Your task to perform on an android device: open device folders in google photos Image 0: 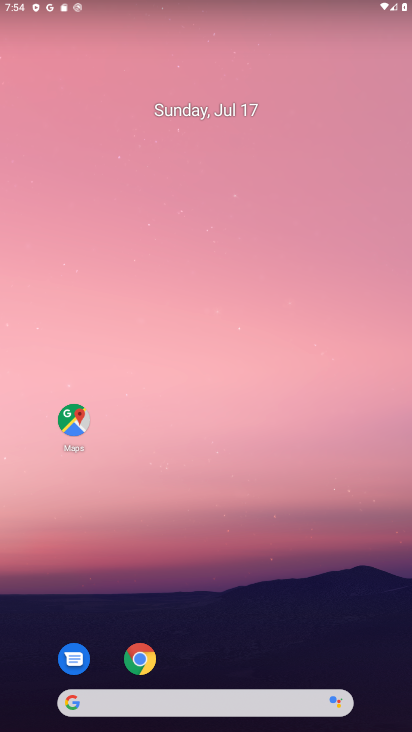
Step 0: drag from (296, 700) to (228, 222)
Your task to perform on an android device: open device folders in google photos Image 1: 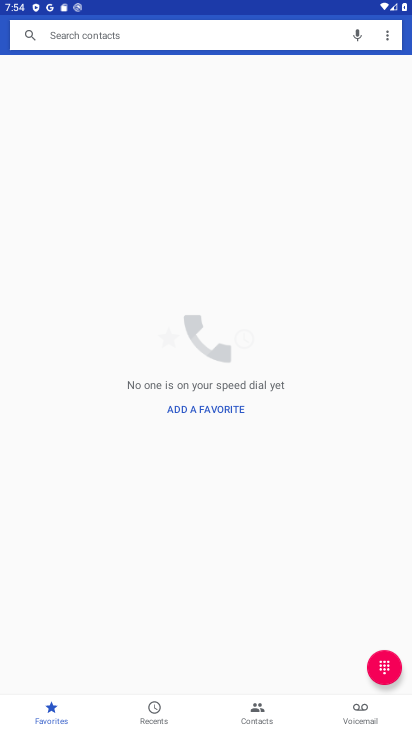
Step 1: click (209, 402)
Your task to perform on an android device: open device folders in google photos Image 2: 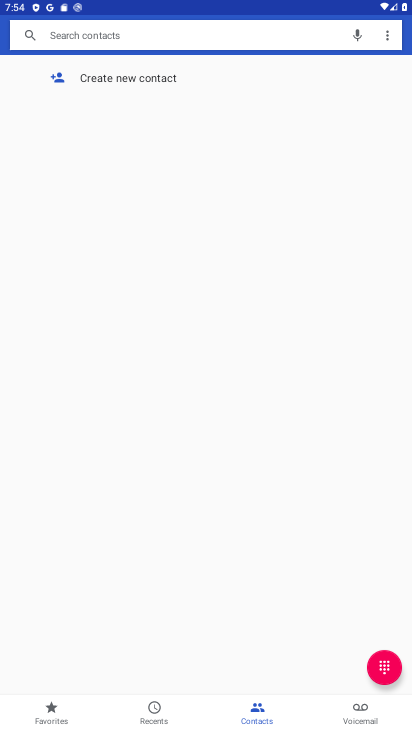
Step 2: click (213, 413)
Your task to perform on an android device: open device folders in google photos Image 3: 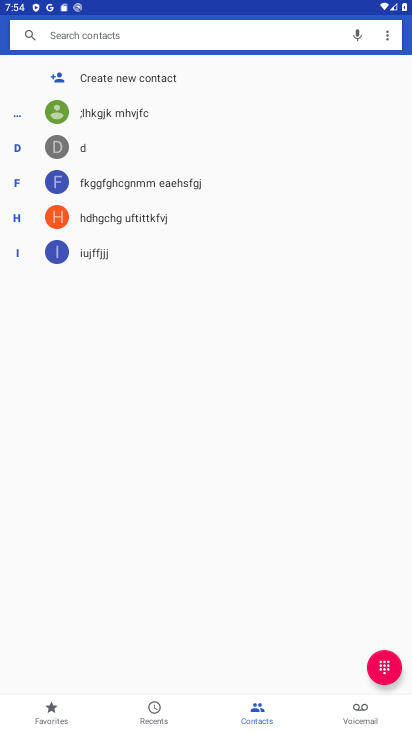
Step 3: click (254, 705)
Your task to perform on an android device: open device folders in google photos Image 4: 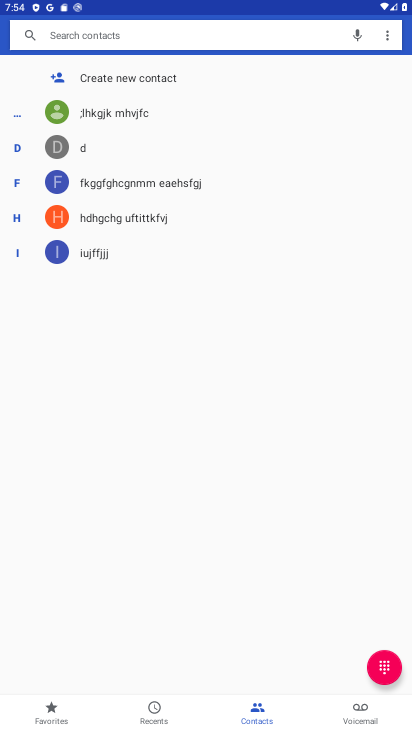
Step 4: click (256, 713)
Your task to perform on an android device: open device folders in google photos Image 5: 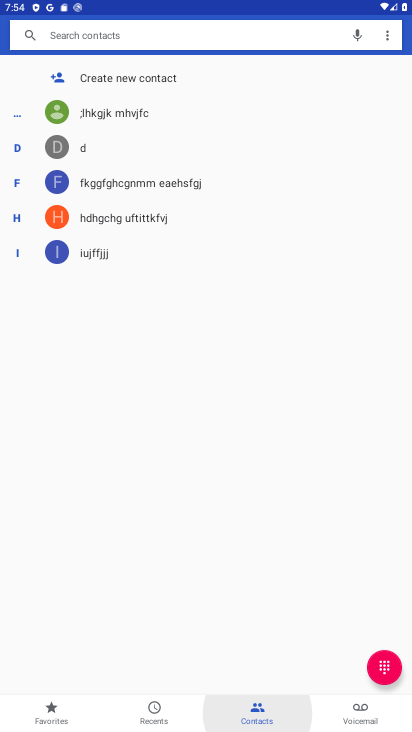
Step 5: click (256, 713)
Your task to perform on an android device: open device folders in google photos Image 6: 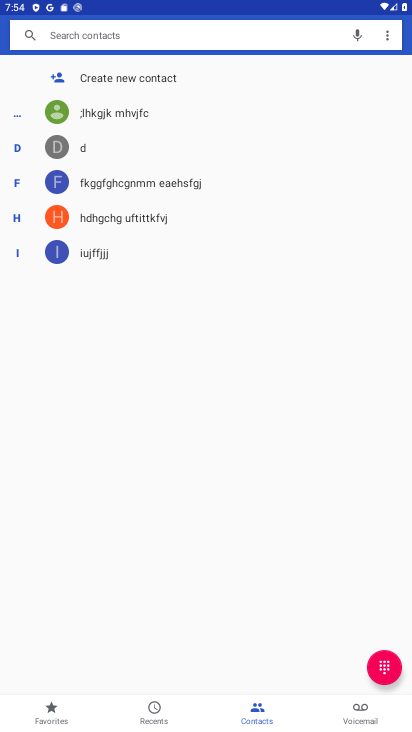
Step 6: click (380, 664)
Your task to perform on an android device: open device folders in google photos Image 7: 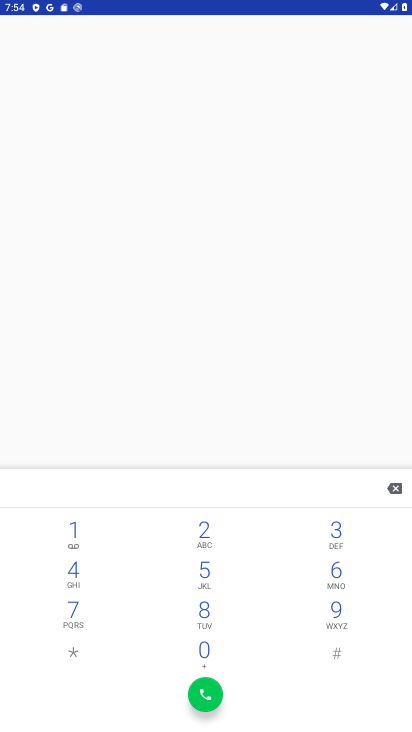
Step 7: press back button
Your task to perform on an android device: open device folders in google photos Image 8: 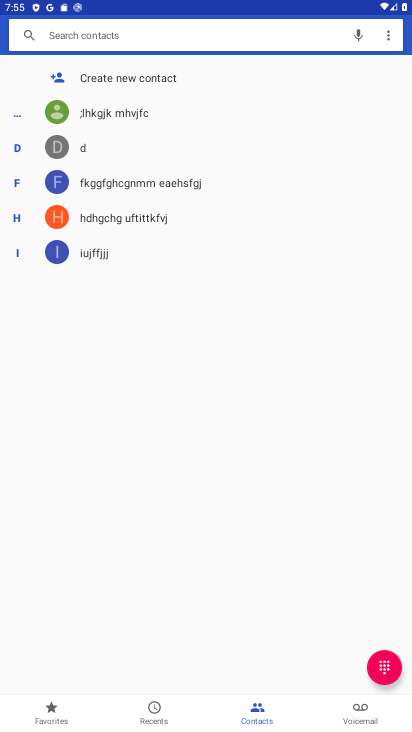
Step 8: press home button
Your task to perform on an android device: open device folders in google photos Image 9: 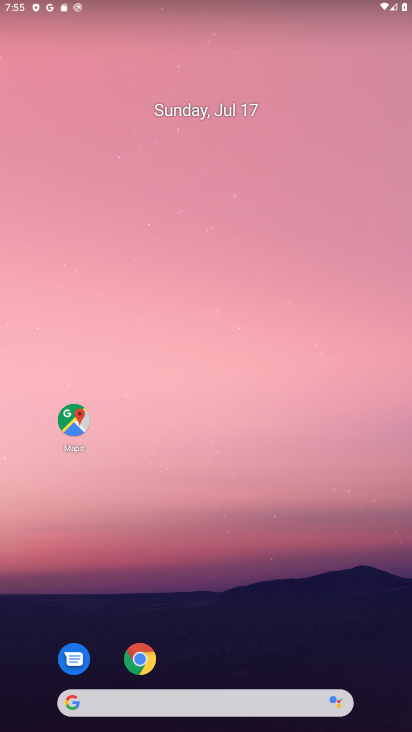
Step 9: drag from (275, 594) to (214, 84)
Your task to perform on an android device: open device folders in google photos Image 10: 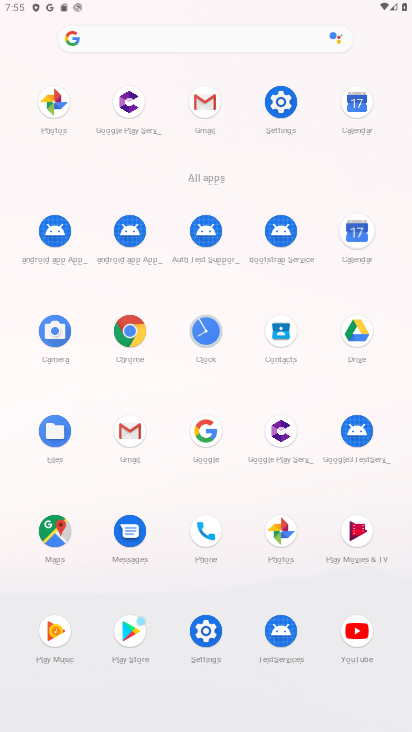
Step 10: click (266, 527)
Your task to perform on an android device: open device folders in google photos Image 11: 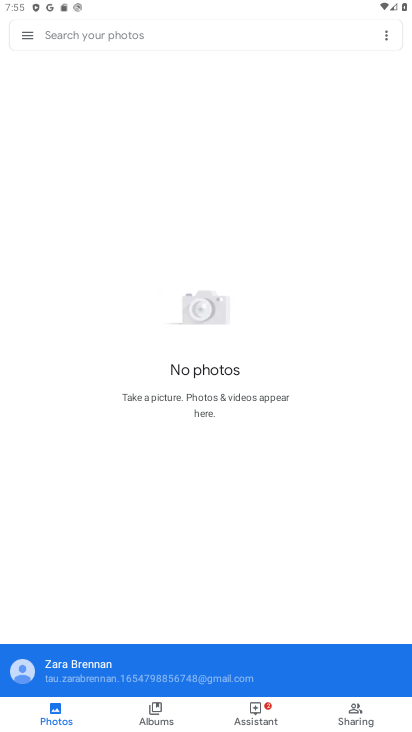
Step 11: click (29, 32)
Your task to perform on an android device: open device folders in google photos Image 12: 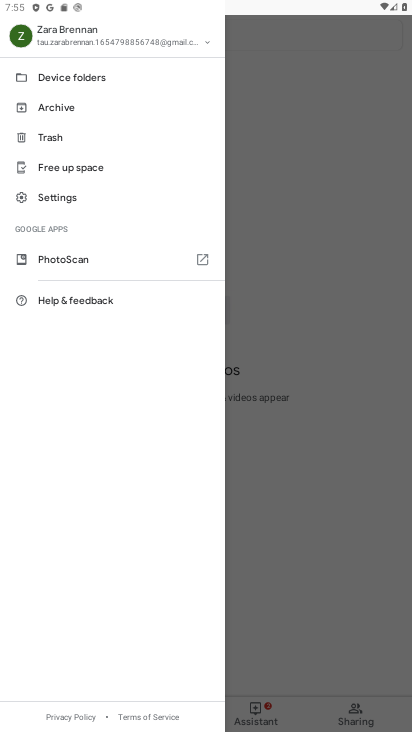
Step 12: click (61, 72)
Your task to perform on an android device: open device folders in google photos Image 13: 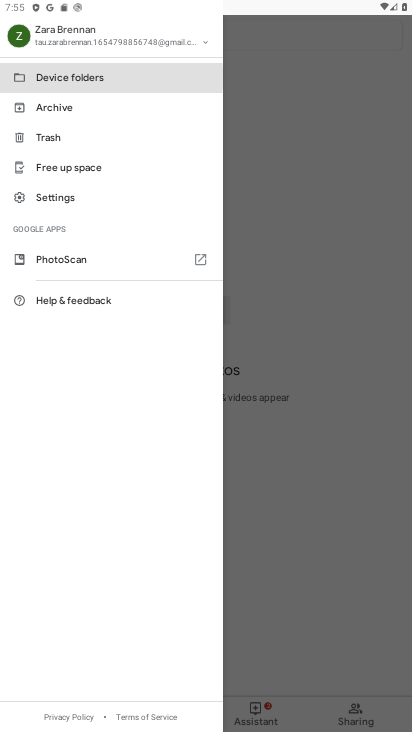
Step 13: click (73, 70)
Your task to perform on an android device: open device folders in google photos Image 14: 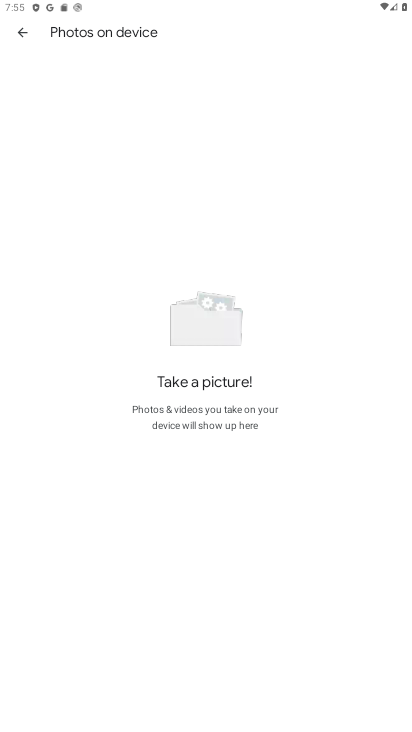
Step 14: task complete